Your task to perform on an android device: toggle location history Image 0: 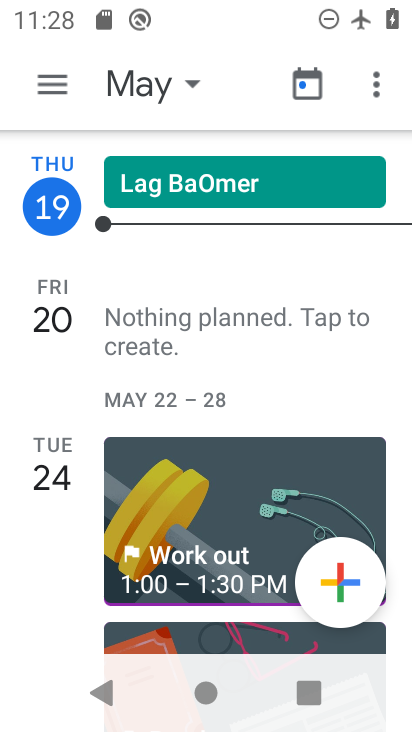
Step 0: press home button
Your task to perform on an android device: toggle location history Image 1: 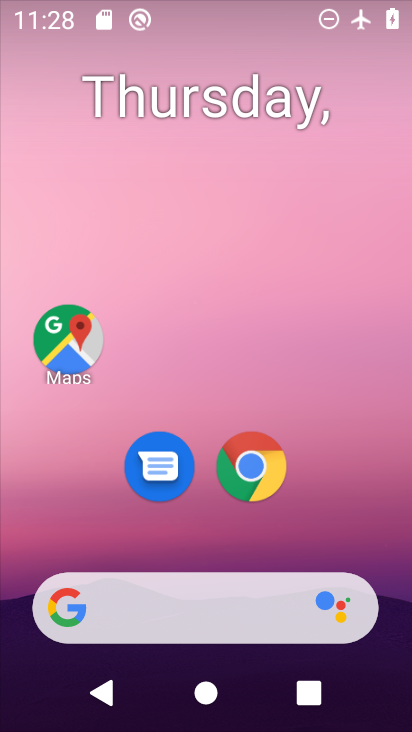
Step 1: drag from (176, 550) to (149, 3)
Your task to perform on an android device: toggle location history Image 2: 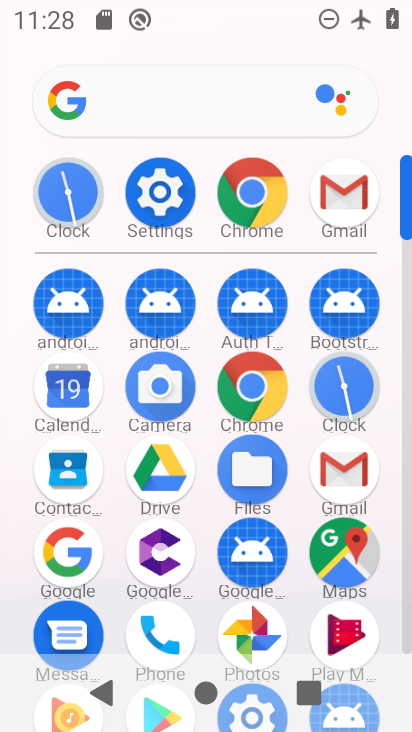
Step 2: click (181, 211)
Your task to perform on an android device: toggle location history Image 3: 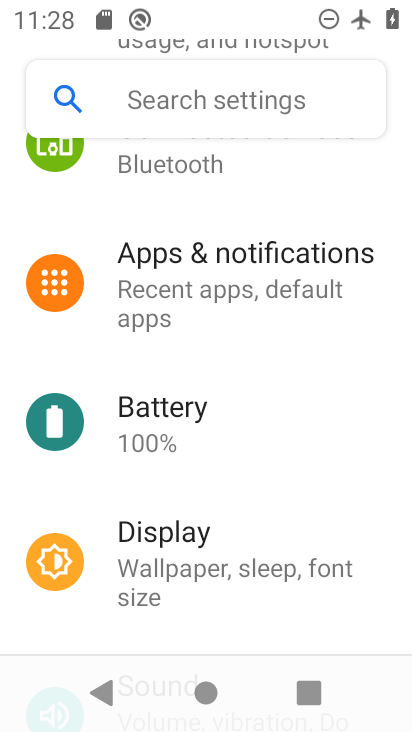
Step 3: drag from (201, 565) to (275, 165)
Your task to perform on an android device: toggle location history Image 4: 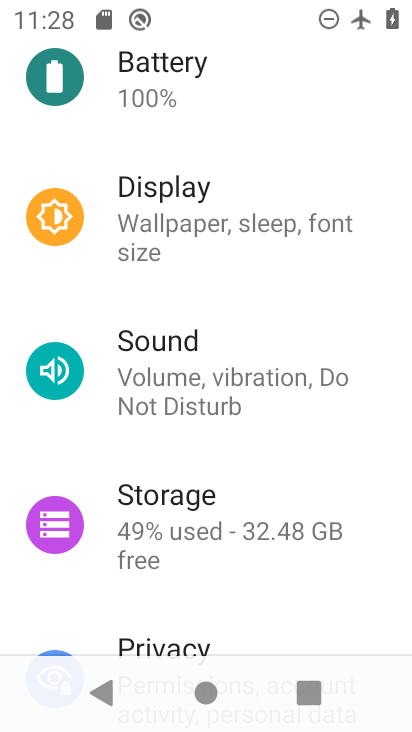
Step 4: drag from (241, 529) to (194, 235)
Your task to perform on an android device: toggle location history Image 5: 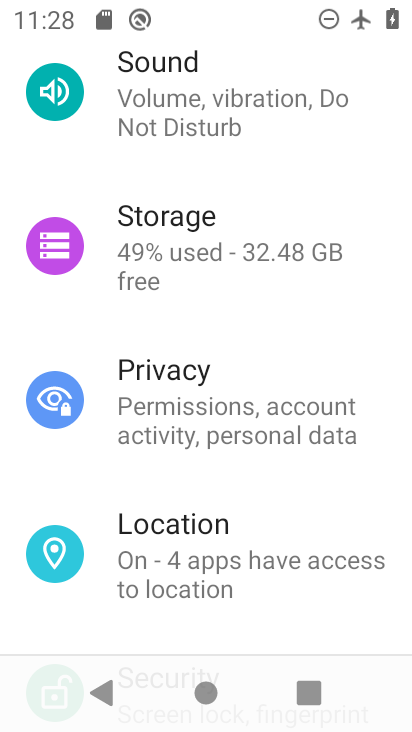
Step 5: click (238, 574)
Your task to perform on an android device: toggle location history Image 6: 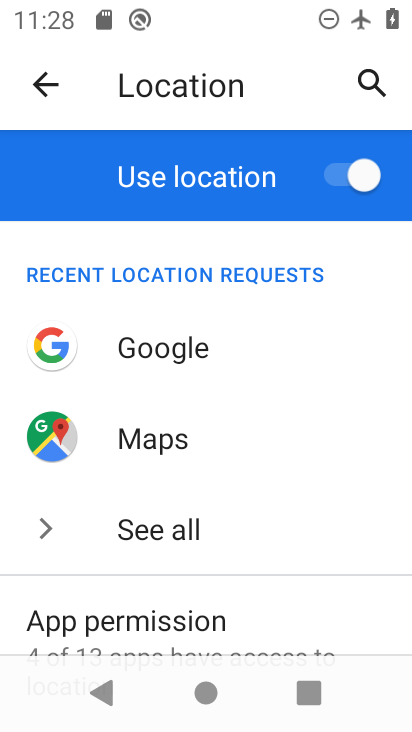
Step 6: drag from (240, 544) to (234, 352)
Your task to perform on an android device: toggle location history Image 7: 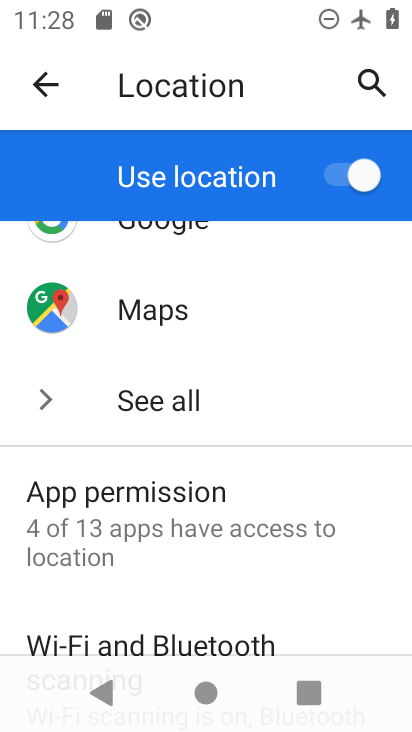
Step 7: drag from (194, 555) to (228, 253)
Your task to perform on an android device: toggle location history Image 8: 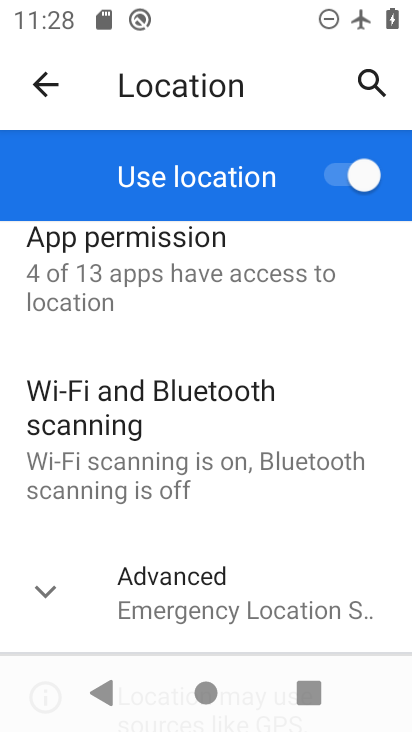
Step 8: drag from (189, 578) to (189, 226)
Your task to perform on an android device: toggle location history Image 9: 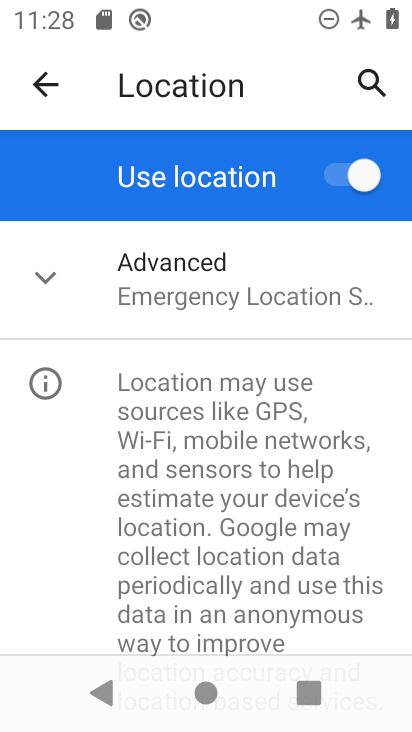
Step 9: click (167, 269)
Your task to perform on an android device: toggle location history Image 10: 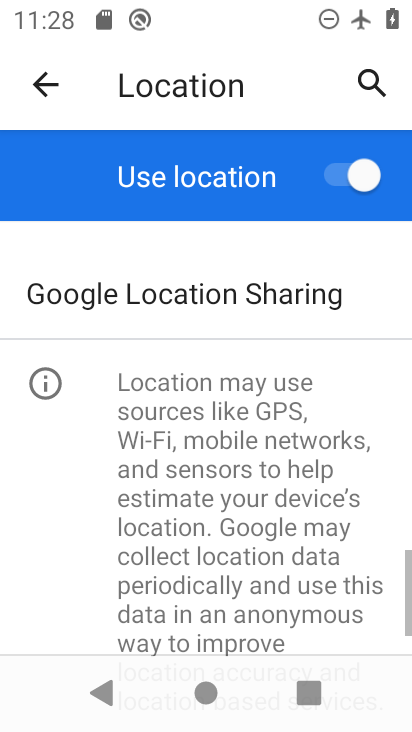
Step 10: drag from (266, 554) to (302, 696)
Your task to perform on an android device: toggle location history Image 11: 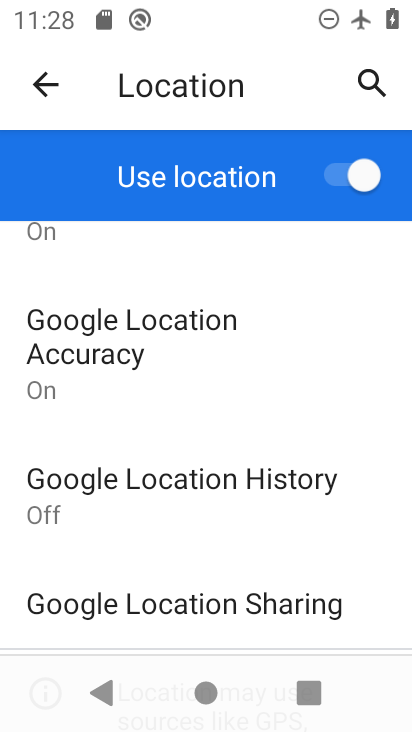
Step 11: click (233, 483)
Your task to perform on an android device: toggle location history Image 12: 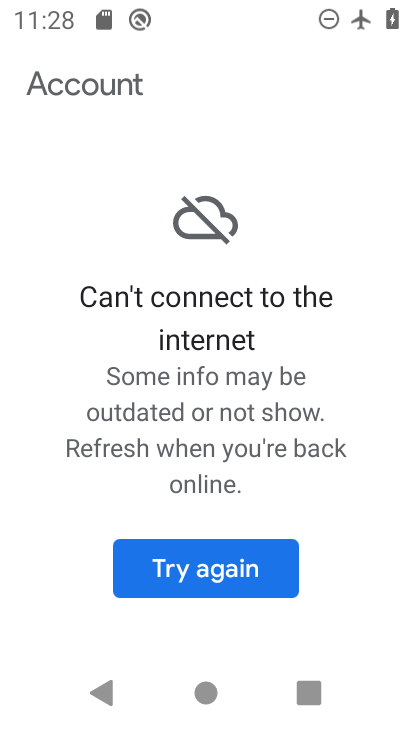
Step 12: task complete